Your task to perform on an android device: find which apps use the phone's location Image 0: 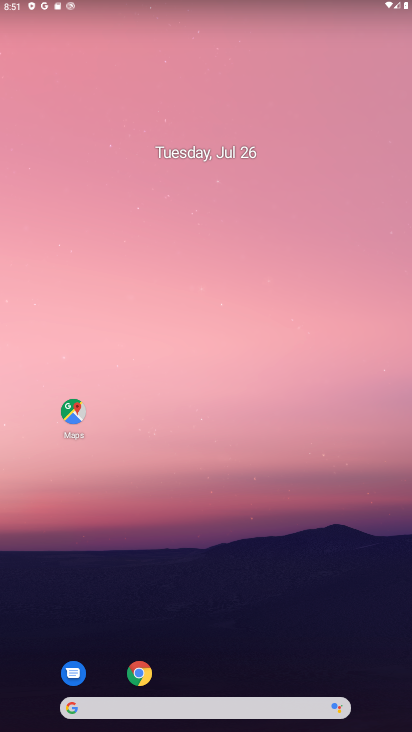
Step 0: drag from (188, 589) to (140, 116)
Your task to perform on an android device: find which apps use the phone's location Image 1: 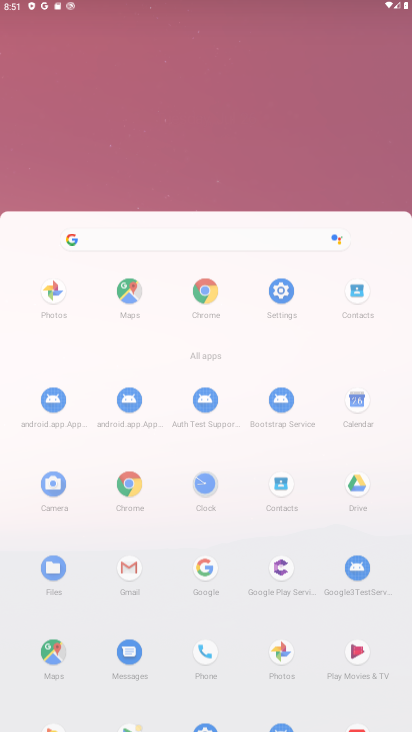
Step 1: drag from (204, 622) to (56, 311)
Your task to perform on an android device: find which apps use the phone's location Image 2: 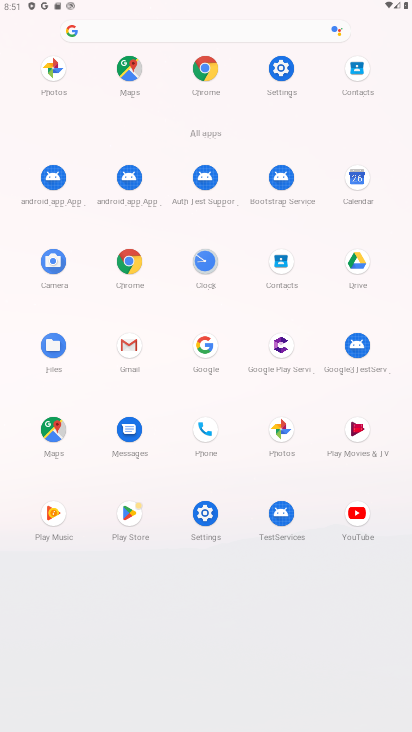
Step 2: drag from (169, 675) to (191, 232)
Your task to perform on an android device: find which apps use the phone's location Image 3: 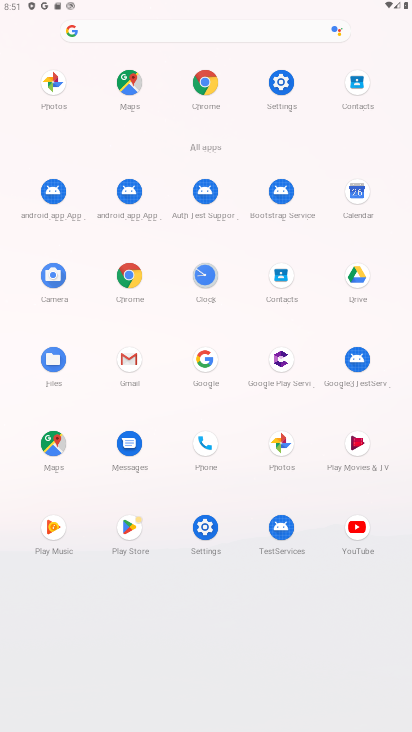
Step 3: click (284, 89)
Your task to perform on an android device: find which apps use the phone's location Image 4: 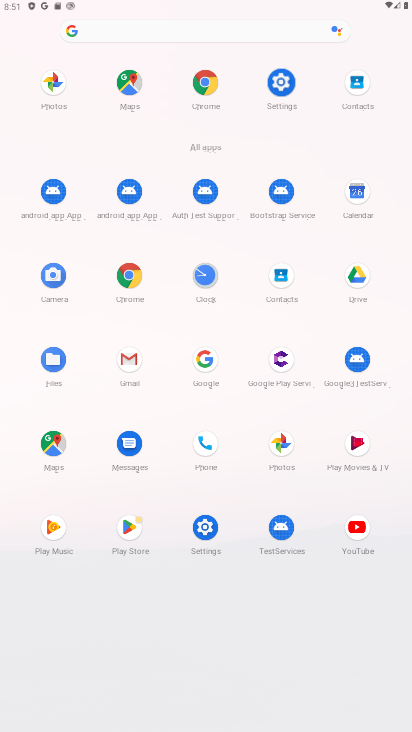
Step 4: click (285, 90)
Your task to perform on an android device: find which apps use the phone's location Image 5: 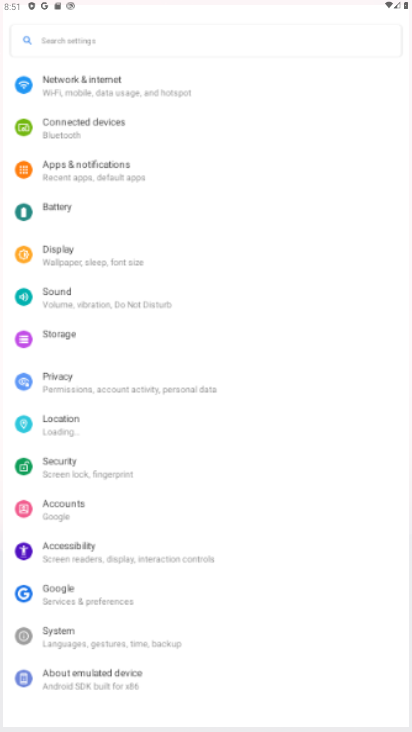
Step 5: click (285, 90)
Your task to perform on an android device: find which apps use the phone's location Image 6: 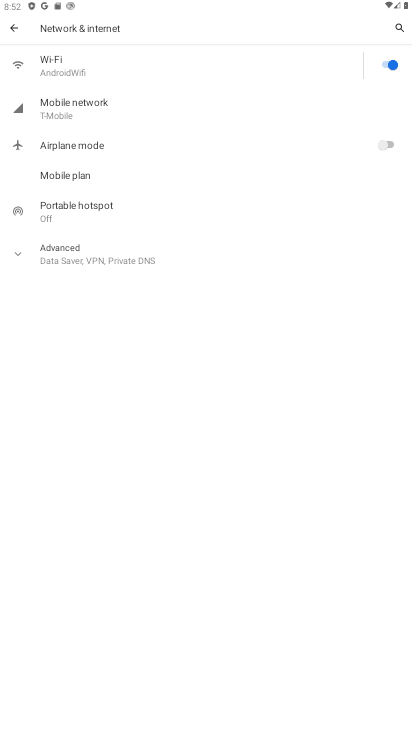
Step 6: click (8, 22)
Your task to perform on an android device: find which apps use the phone's location Image 7: 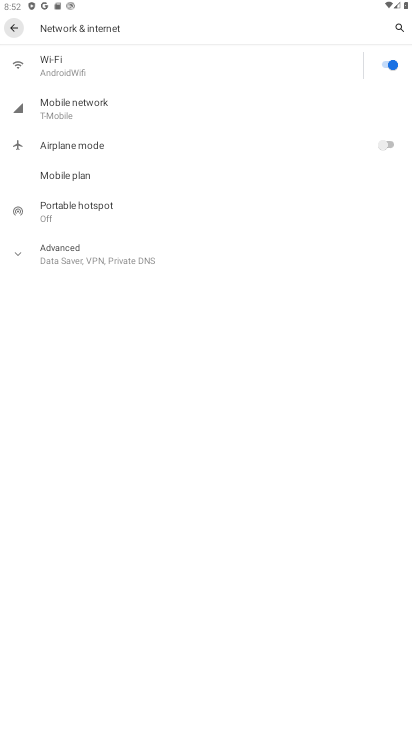
Step 7: click (7, 13)
Your task to perform on an android device: find which apps use the phone's location Image 8: 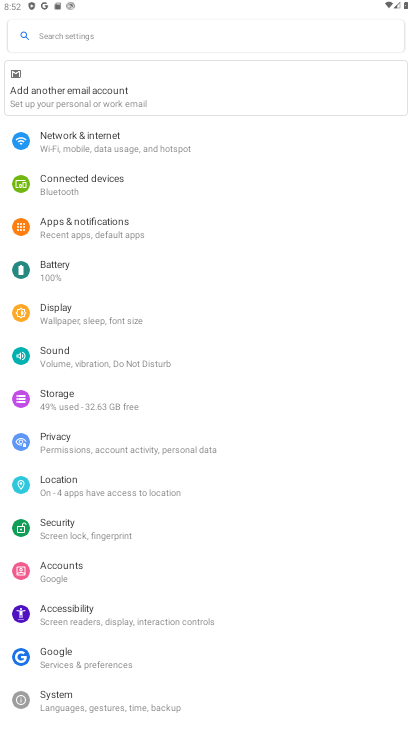
Step 8: click (64, 490)
Your task to perform on an android device: find which apps use the phone's location Image 9: 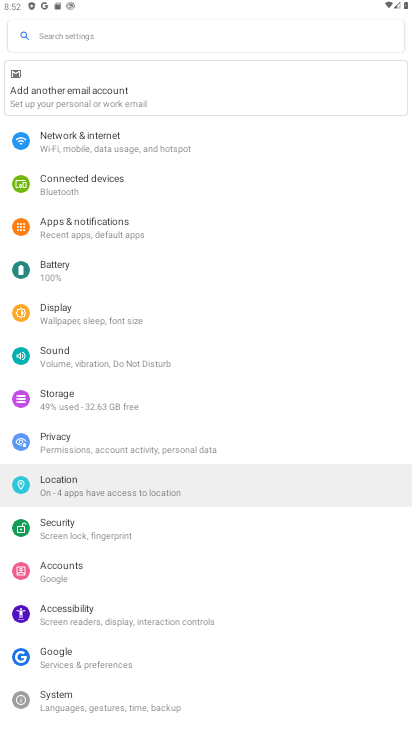
Step 9: click (64, 490)
Your task to perform on an android device: find which apps use the phone's location Image 10: 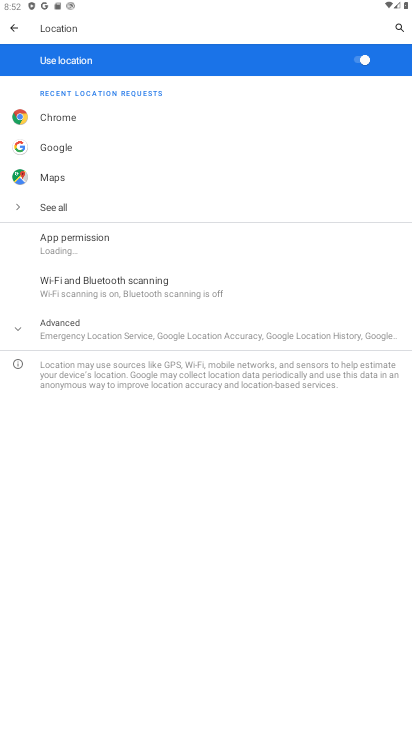
Step 10: click (59, 239)
Your task to perform on an android device: find which apps use the phone's location Image 11: 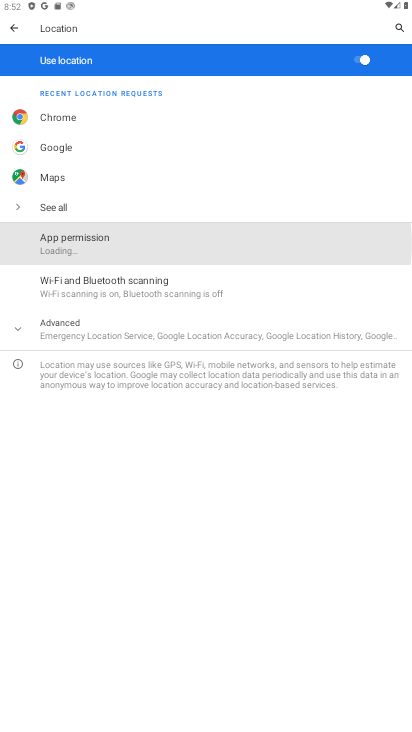
Step 11: click (59, 238)
Your task to perform on an android device: find which apps use the phone's location Image 12: 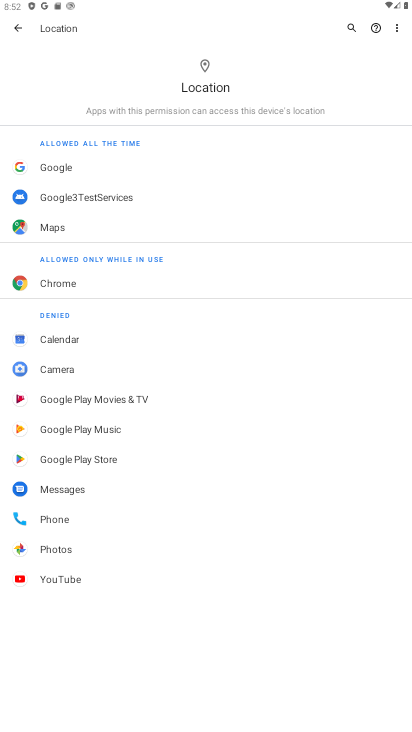
Step 12: task complete